Your task to perform on an android device: check android version Image 0: 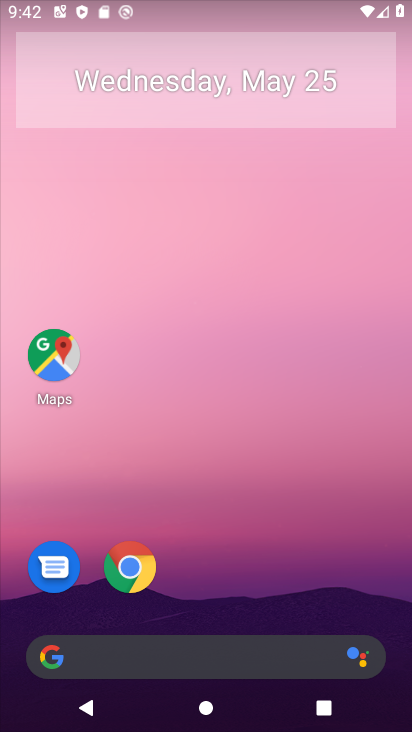
Step 0: drag from (286, 584) to (394, 8)
Your task to perform on an android device: check android version Image 1: 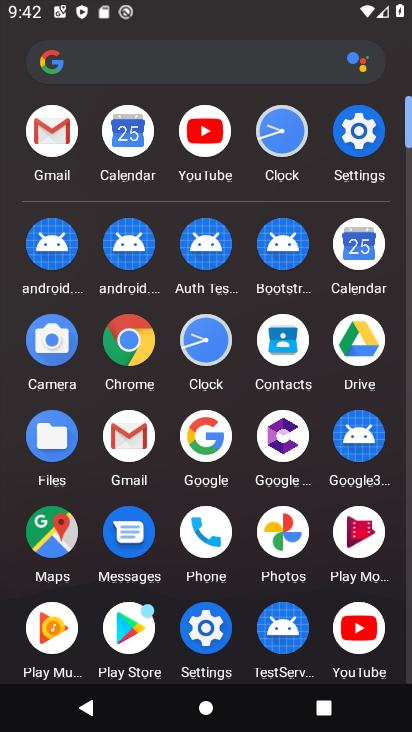
Step 1: click (364, 163)
Your task to perform on an android device: check android version Image 2: 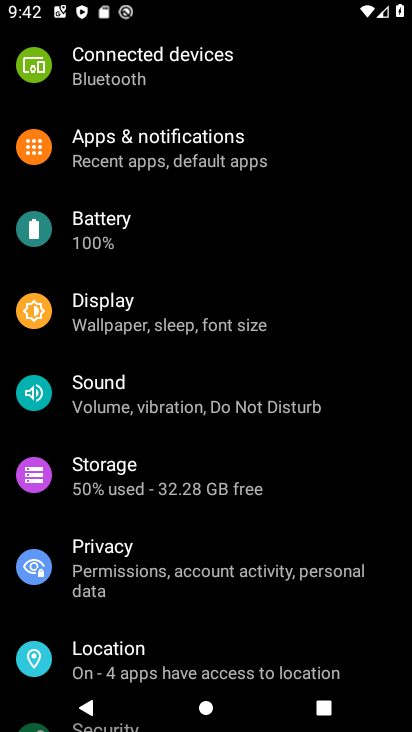
Step 2: task complete